Your task to perform on an android device: turn on bluetooth scan Image 0: 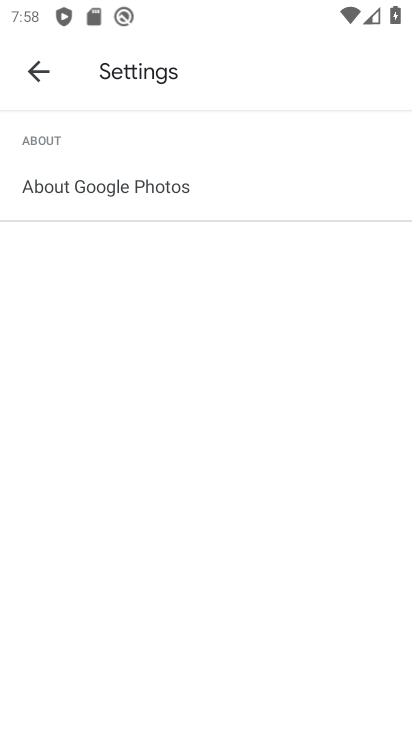
Step 0: press home button
Your task to perform on an android device: turn on bluetooth scan Image 1: 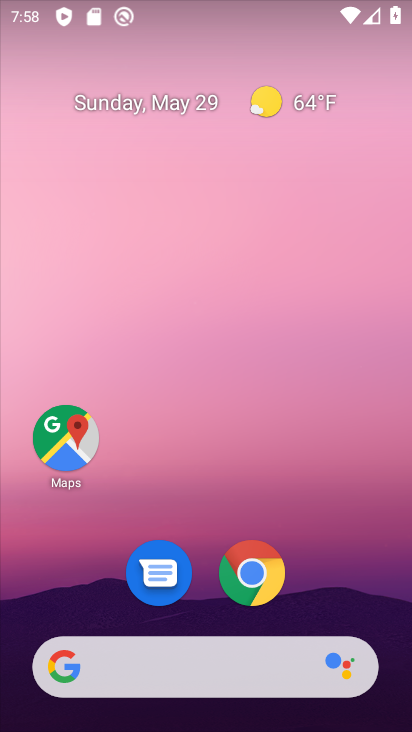
Step 1: drag from (95, 586) to (249, 207)
Your task to perform on an android device: turn on bluetooth scan Image 2: 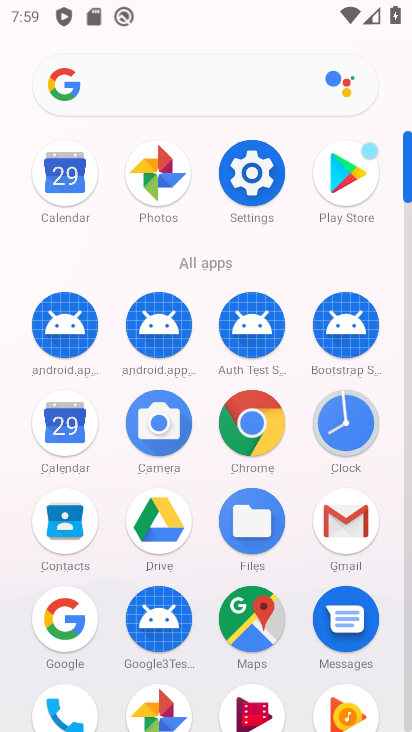
Step 2: drag from (121, 648) to (252, 274)
Your task to perform on an android device: turn on bluetooth scan Image 3: 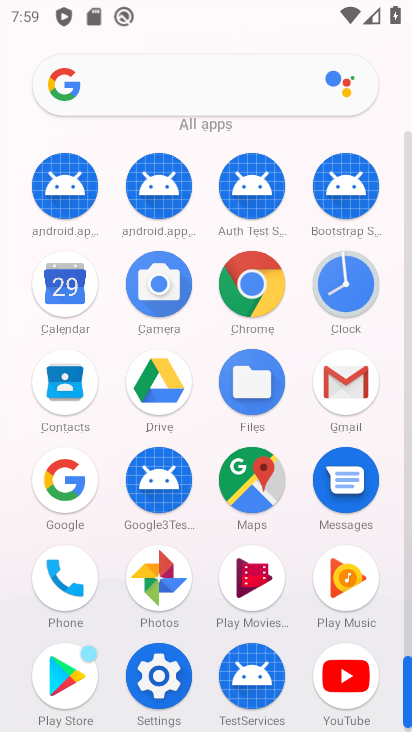
Step 3: click (164, 682)
Your task to perform on an android device: turn on bluetooth scan Image 4: 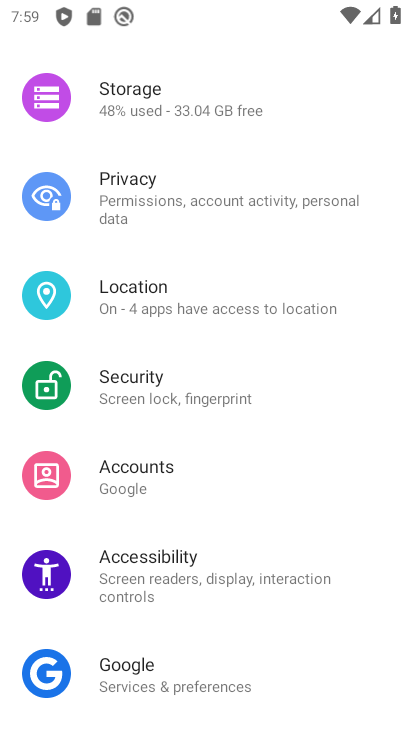
Step 4: drag from (230, 167) to (167, 650)
Your task to perform on an android device: turn on bluetooth scan Image 5: 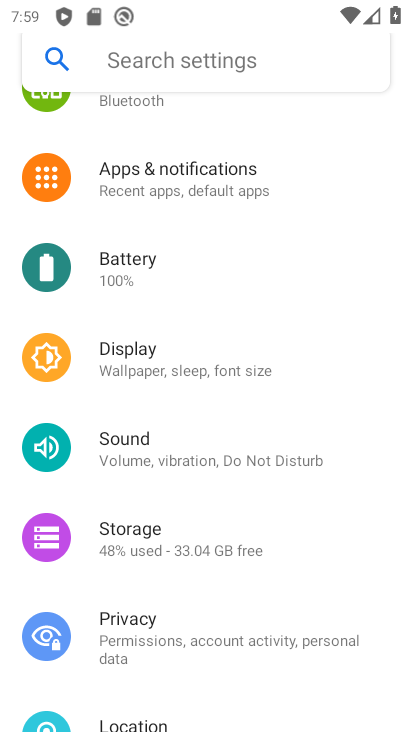
Step 5: drag from (232, 223) to (190, 628)
Your task to perform on an android device: turn on bluetooth scan Image 6: 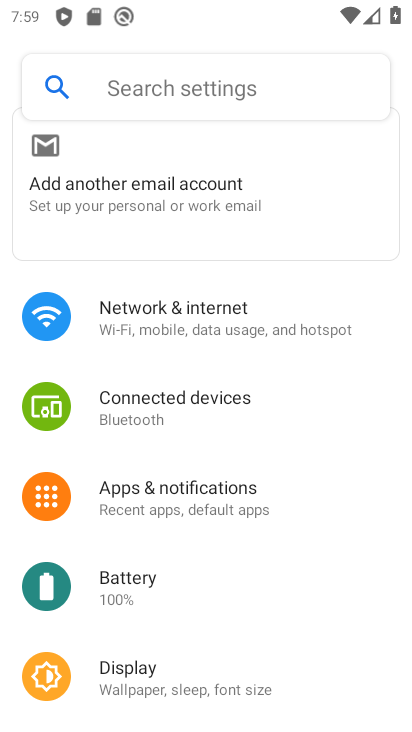
Step 6: click (218, 405)
Your task to perform on an android device: turn on bluetooth scan Image 7: 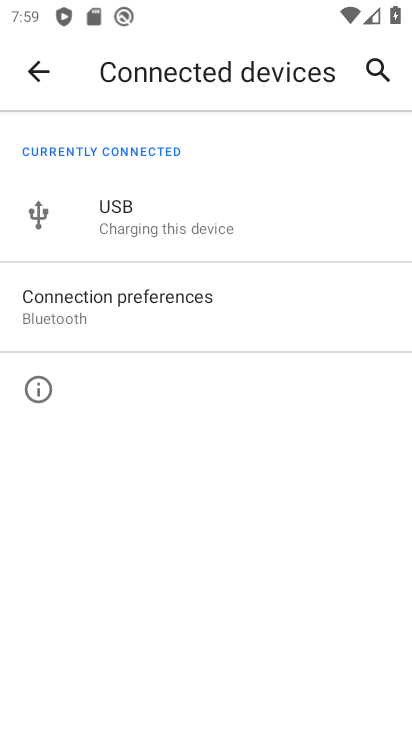
Step 7: click (232, 327)
Your task to perform on an android device: turn on bluetooth scan Image 8: 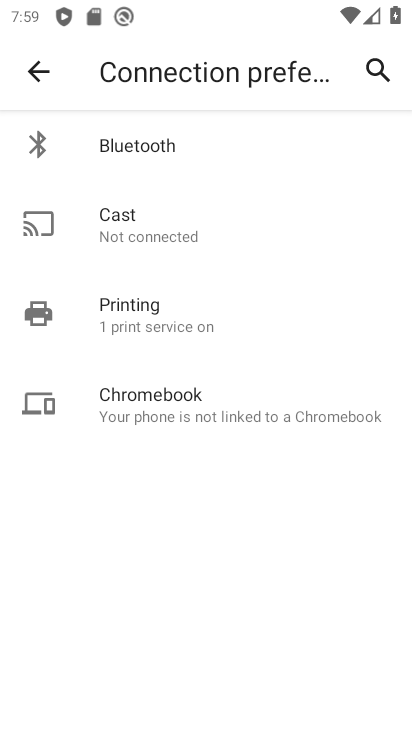
Step 8: click (258, 158)
Your task to perform on an android device: turn on bluetooth scan Image 9: 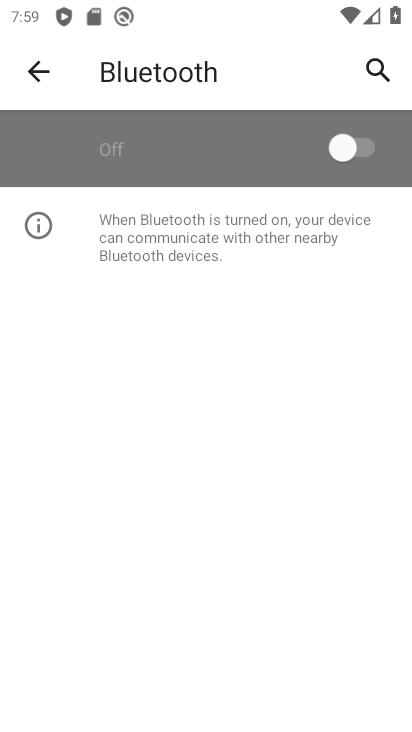
Step 9: click (382, 148)
Your task to perform on an android device: turn on bluetooth scan Image 10: 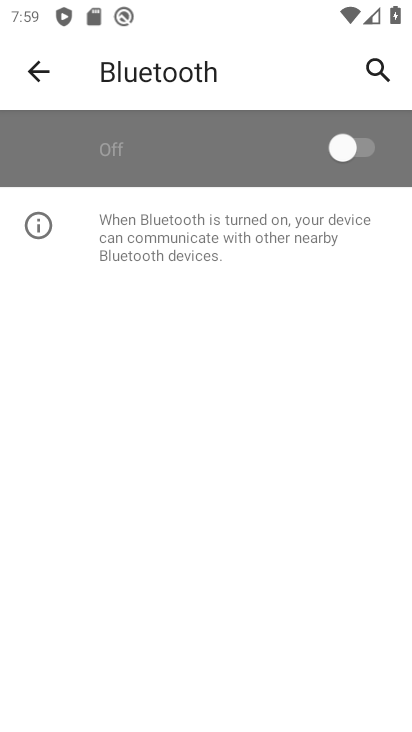
Step 10: task complete